Your task to perform on an android device: check the backup settings in the google photos Image 0: 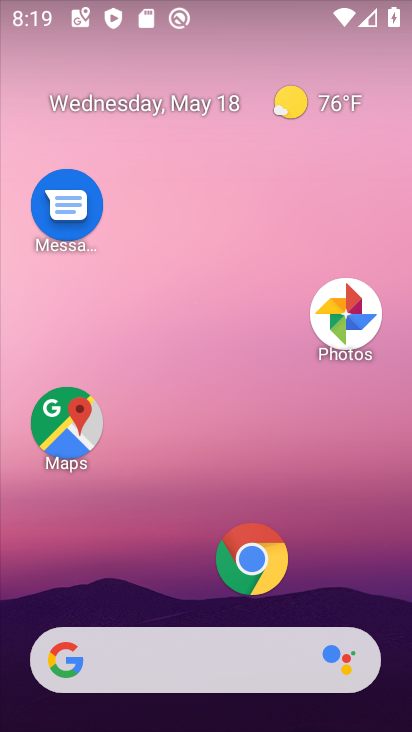
Step 0: drag from (229, 607) to (202, 119)
Your task to perform on an android device: check the backup settings in the google photos Image 1: 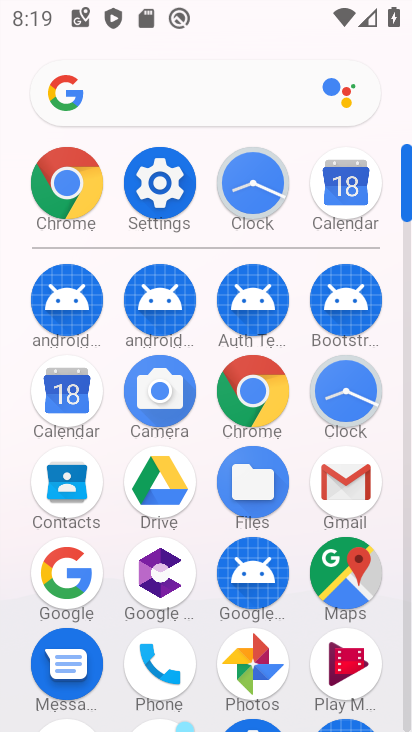
Step 1: click (259, 645)
Your task to perform on an android device: check the backup settings in the google photos Image 2: 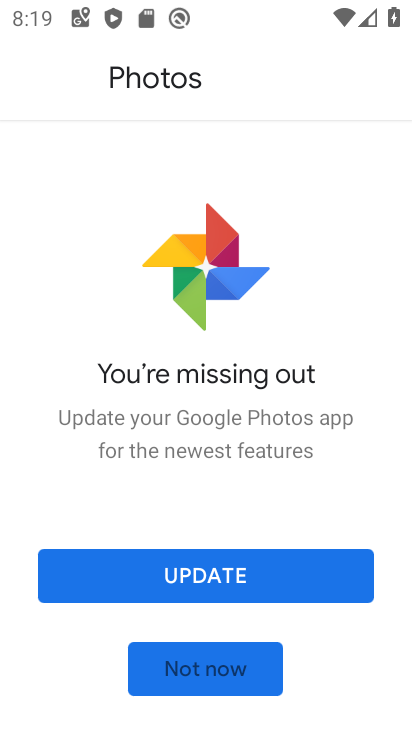
Step 2: click (218, 656)
Your task to perform on an android device: check the backup settings in the google photos Image 3: 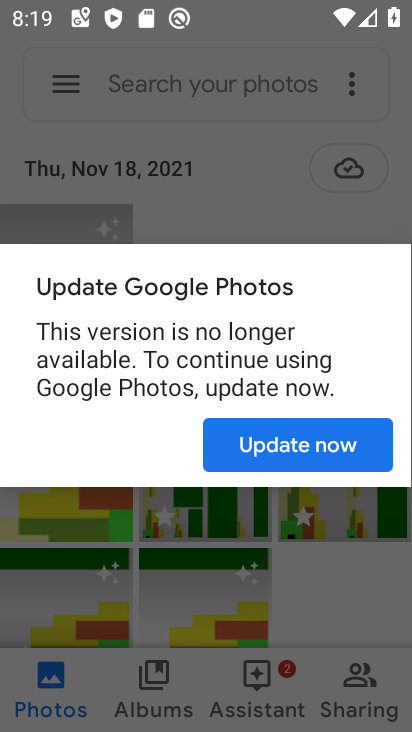
Step 3: click (324, 464)
Your task to perform on an android device: check the backup settings in the google photos Image 4: 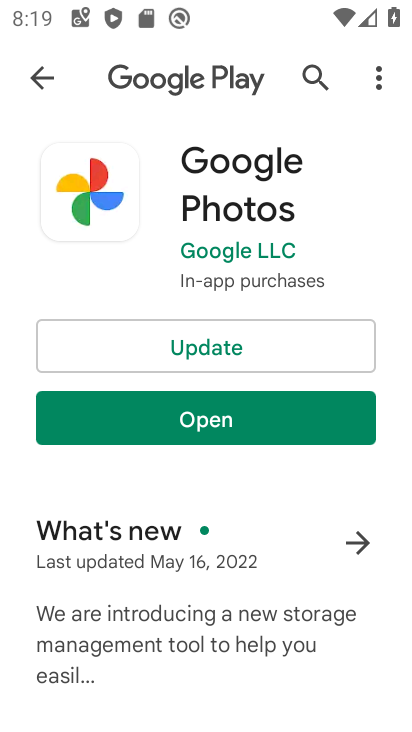
Step 4: click (200, 418)
Your task to perform on an android device: check the backup settings in the google photos Image 5: 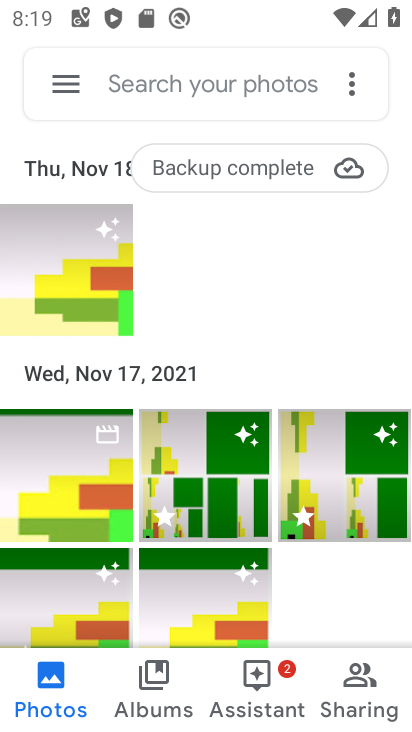
Step 5: click (78, 87)
Your task to perform on an android device: check the backup settings in the google photos Image 6: 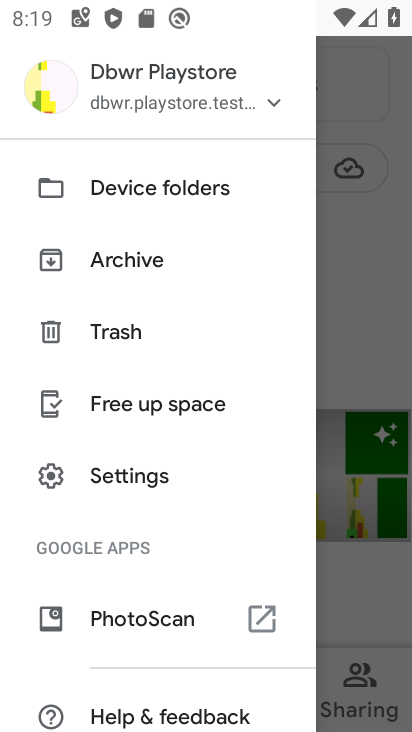
Step 6: click (109, 92)
Your task to perform on an android device: check the backup settings in the google photos Image 7: 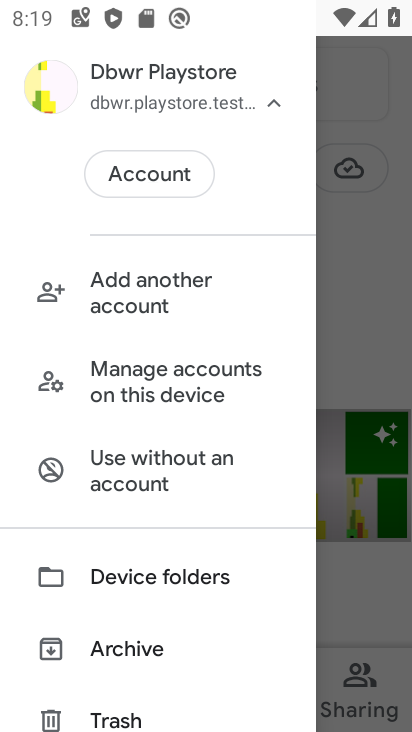
Step 7: drag from (198, 520) to (160, 2)
Your task to perform on an android device: check the backup settings in the google photos Image 8: 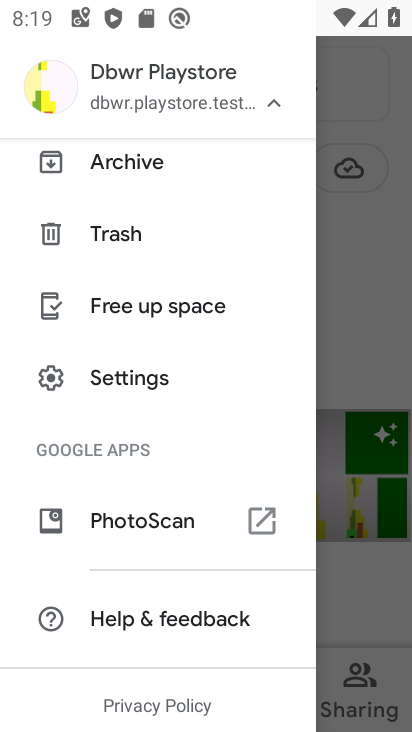
Step 8: click (173, 386)
Your task to perform on an android device: check the backup settings in the google photos Image 9: 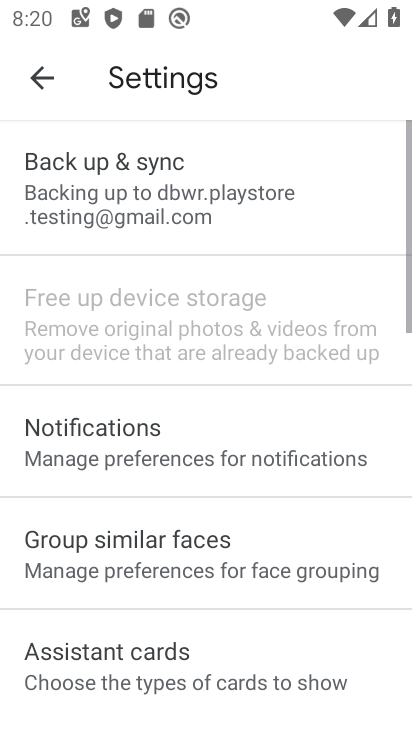
Step 9: click (240, 163)
Your task to perform on an android device: check the backup settings in the google photos Image 10: 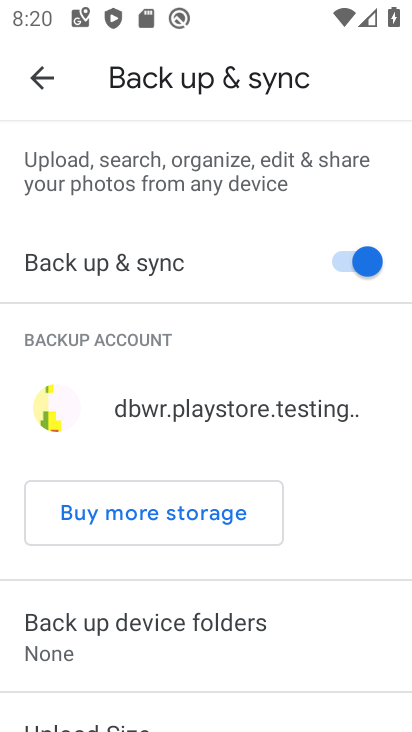
Step 10: task complete